Your task to perform on an android device: Clear the shopping cart on newegg. Image 0: 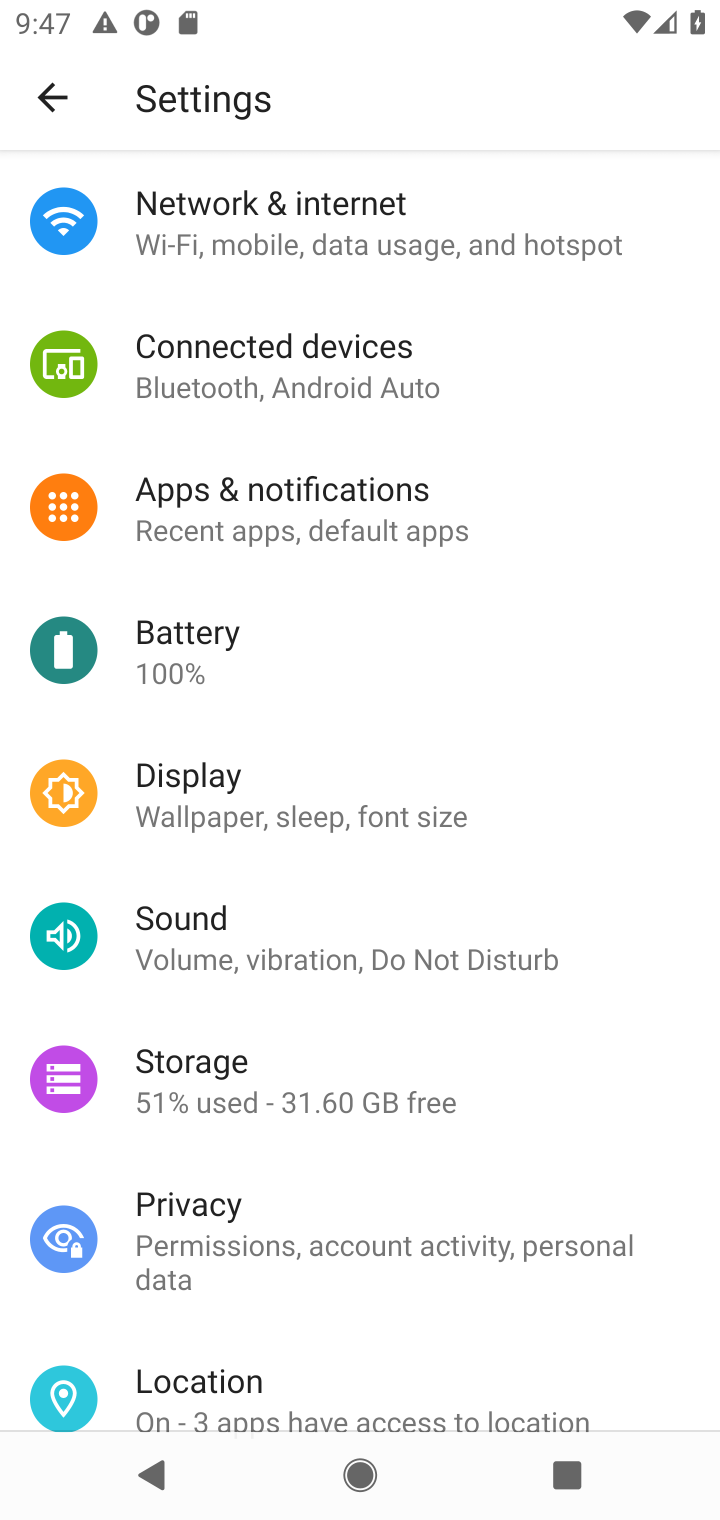
Step 0: press home button
Your task to perform on an android device: Clear the shopping cart on newegg. Image 1: 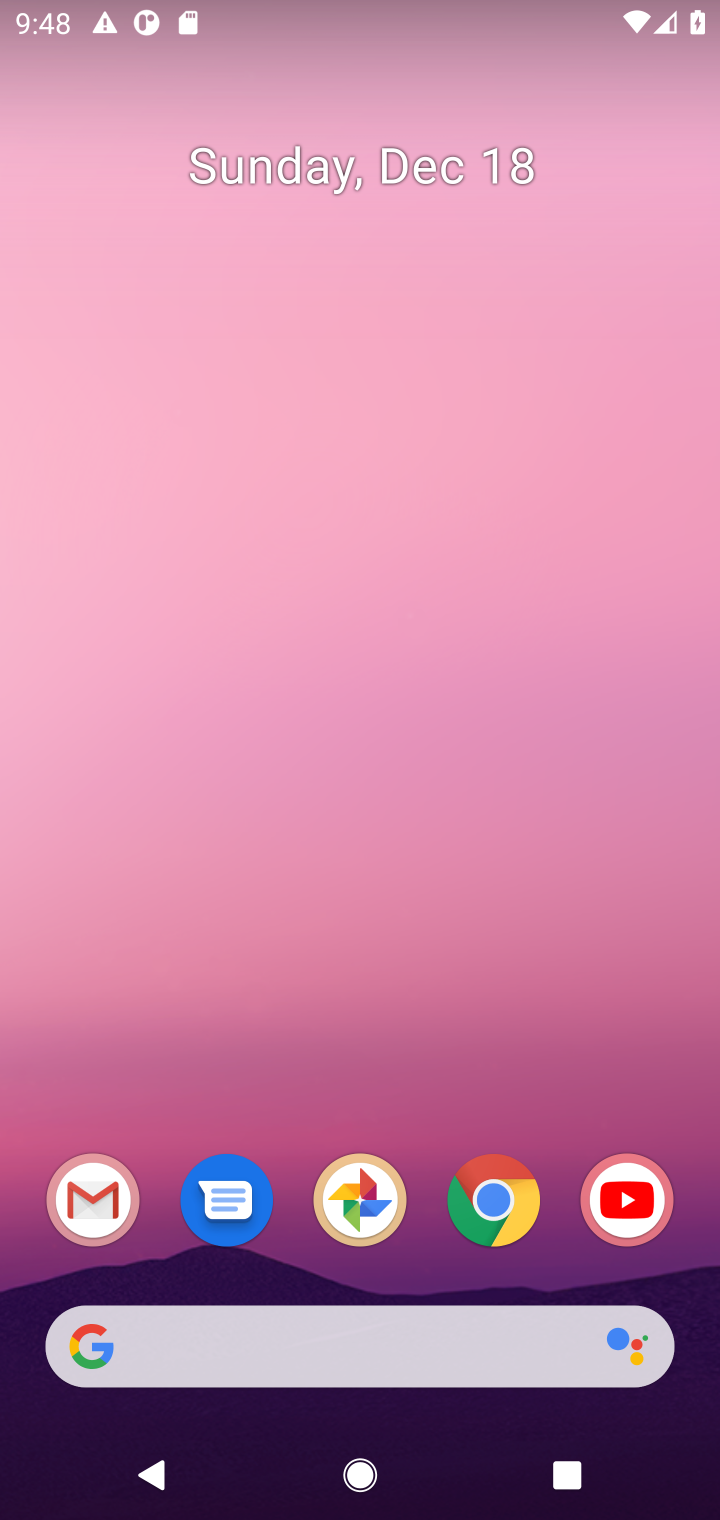
Step 1: click (506, 1207)
Your task to perform on an android device: Clear the shopping cart on newegg. Image 2: 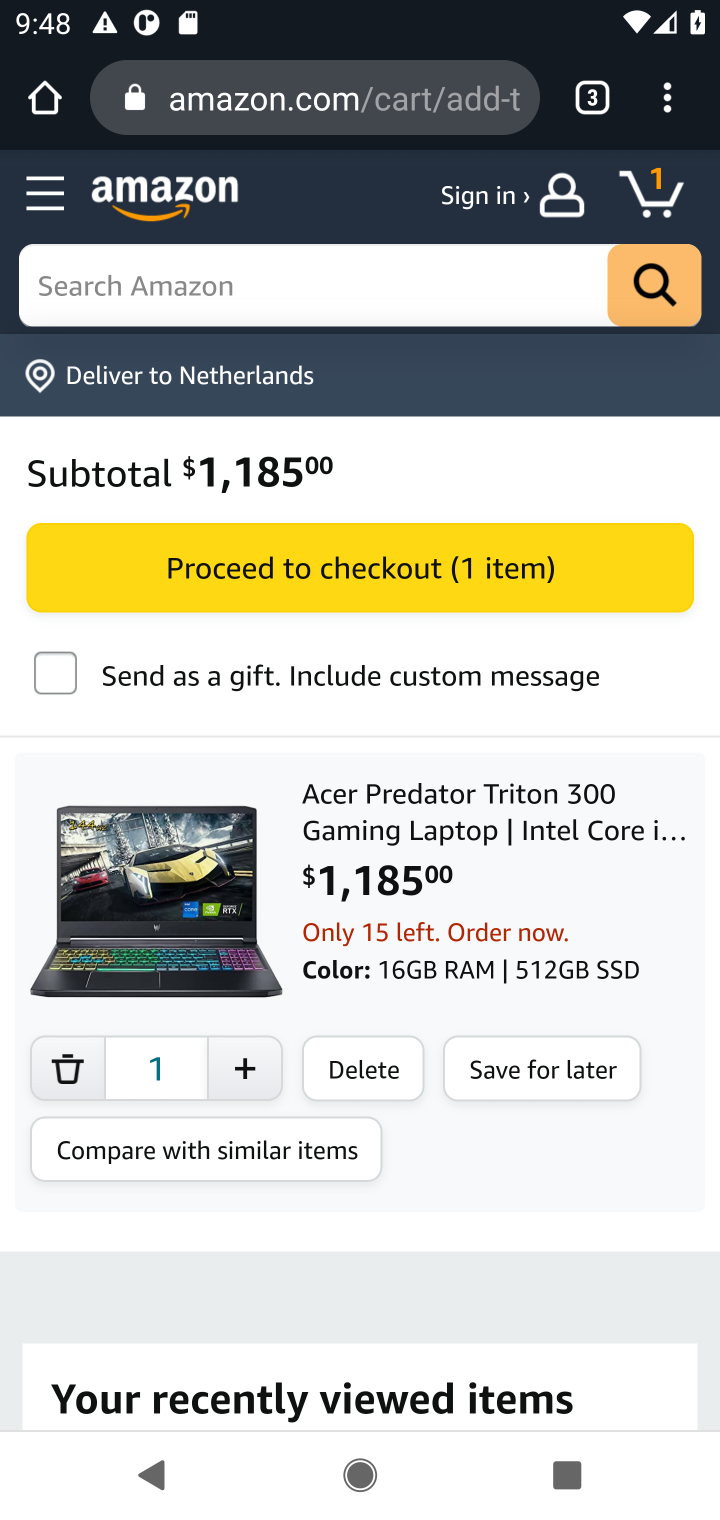
Step 2: click (280, 114)
Your task to perform on an android device: Clear the shopping cart on newegg. Image 3: 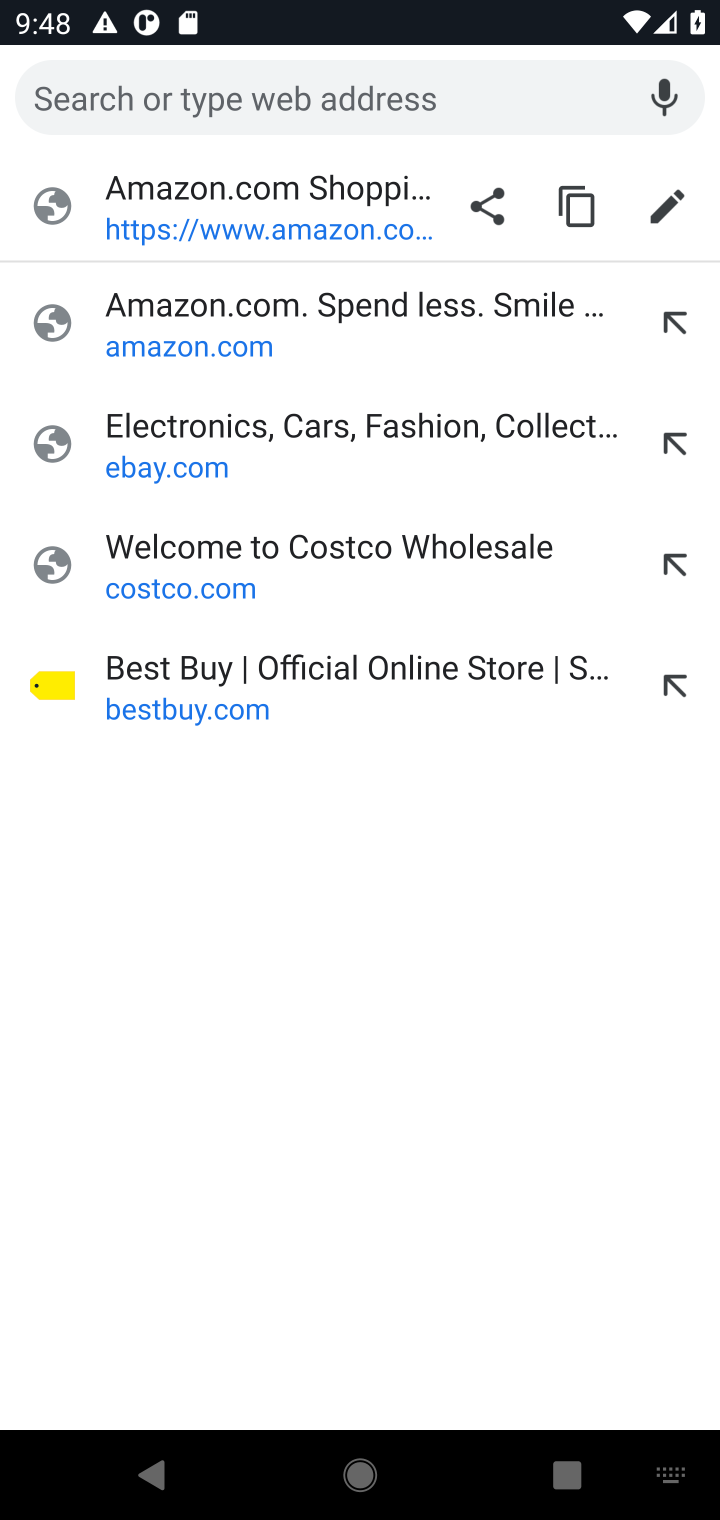
Step 3: type "newegg.com"
Your task to perform on an android device: Clear the shopping cart on newegg. Image 4: 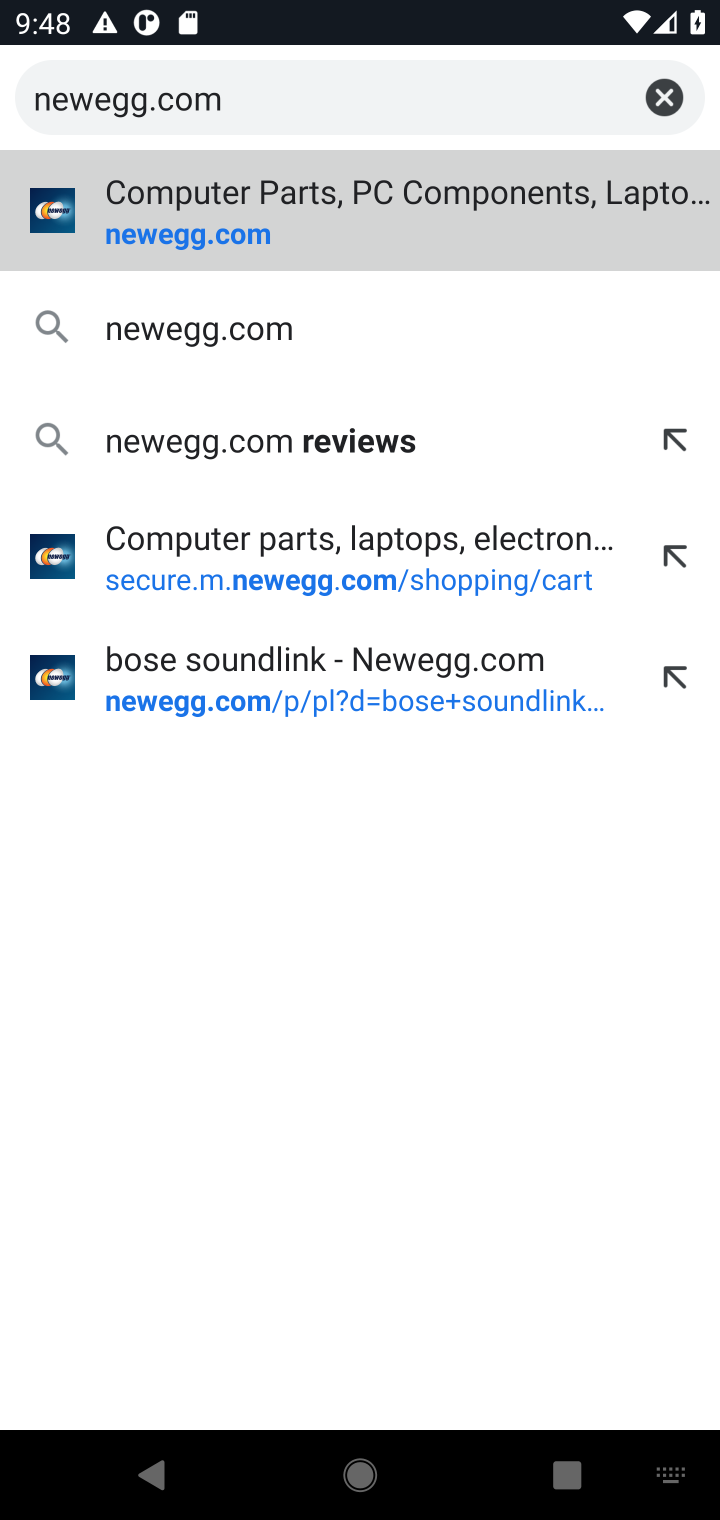
Step 4: click (145, 240)
Your task to perform on an android device: Clear the shopping cart on newegg. Image 5: 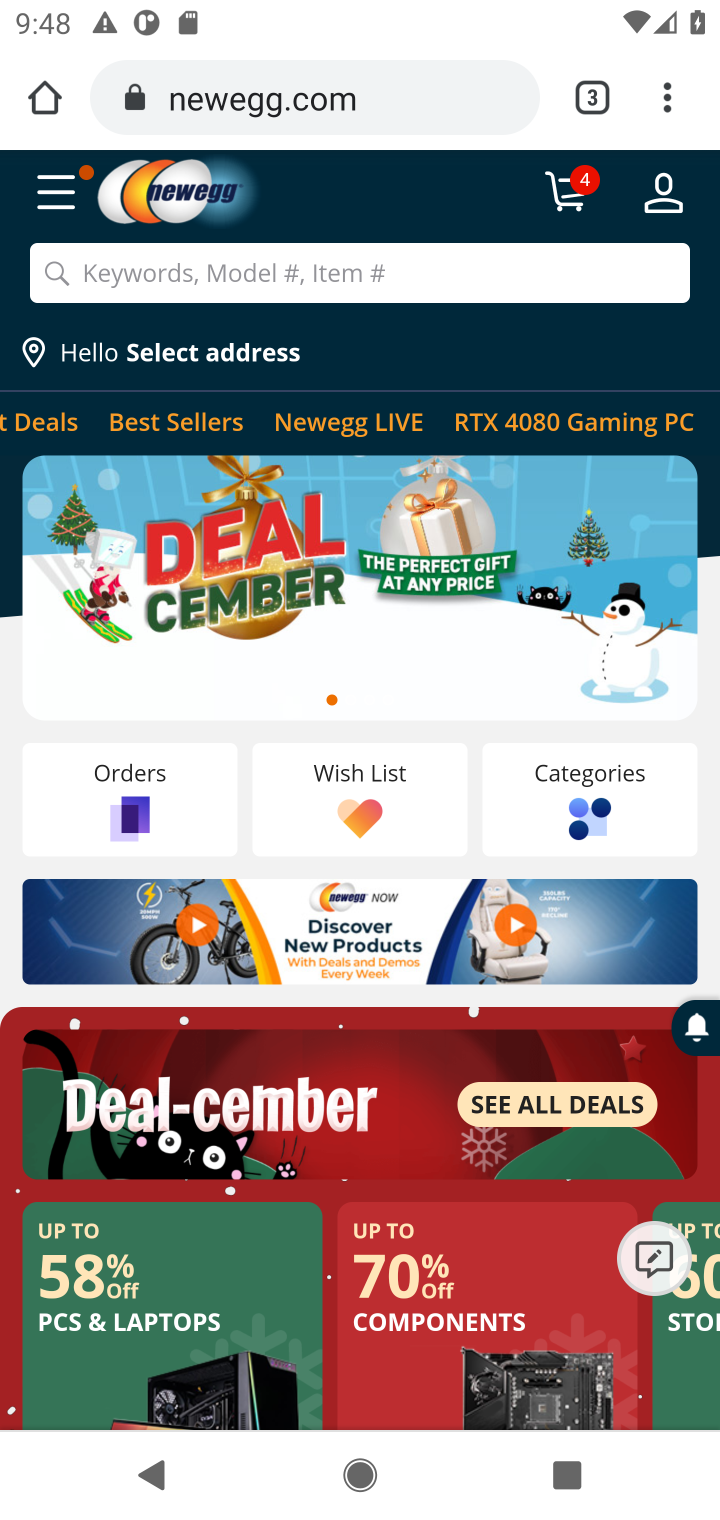
Step 5: click (572, 207)
Your task to perform on an android device: Clear the shopping cart on newegg. Image 6: 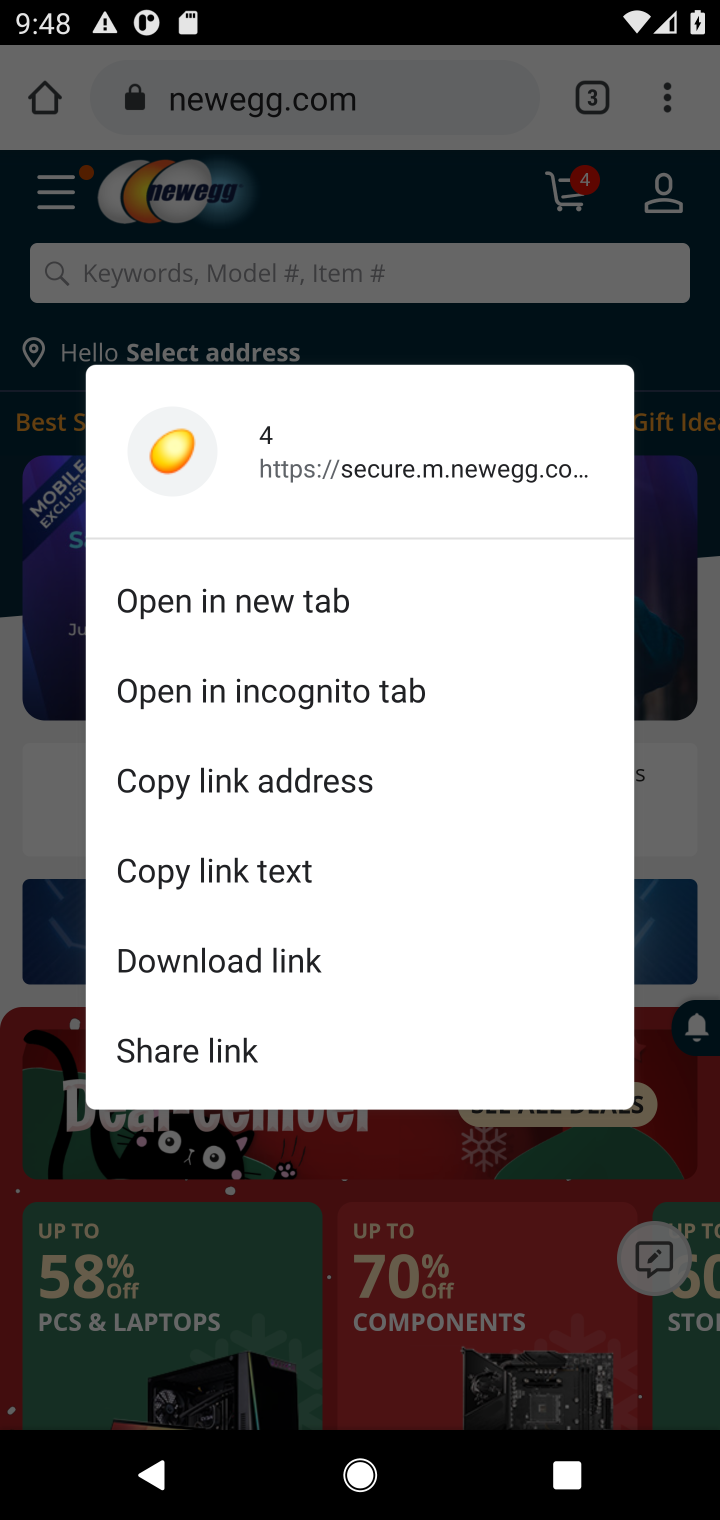
Step 6: click (572, 207)
Your task to perform on an android device: Clear the shopping cart on newegg. Image 7: 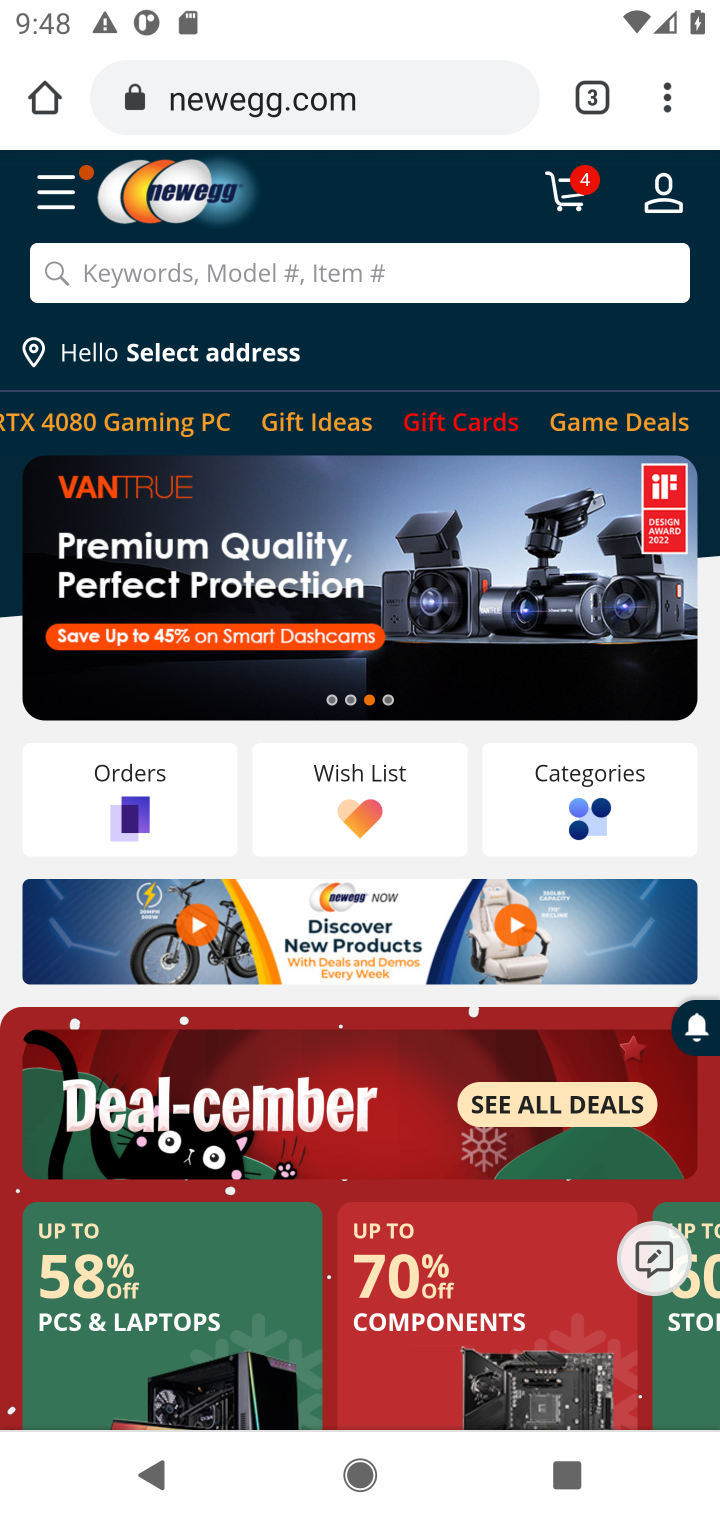
Step 7: click (569, 201)
Your task to perform on an android device: Clear the shopping cart on newegg. Image 8: 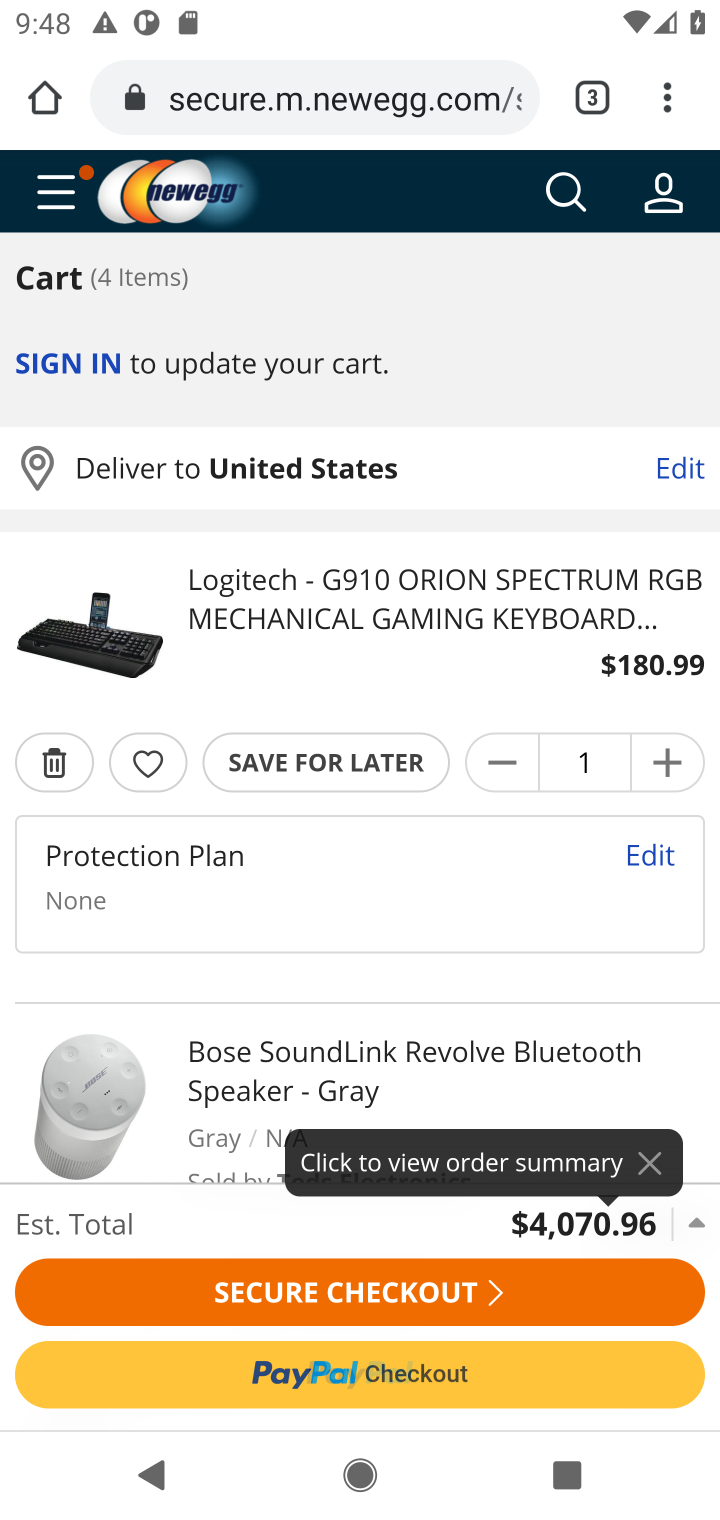
Step 8: click (48, 770)
Your task to perform on an android device: Clear the shopping cart on newegg. Image 9: 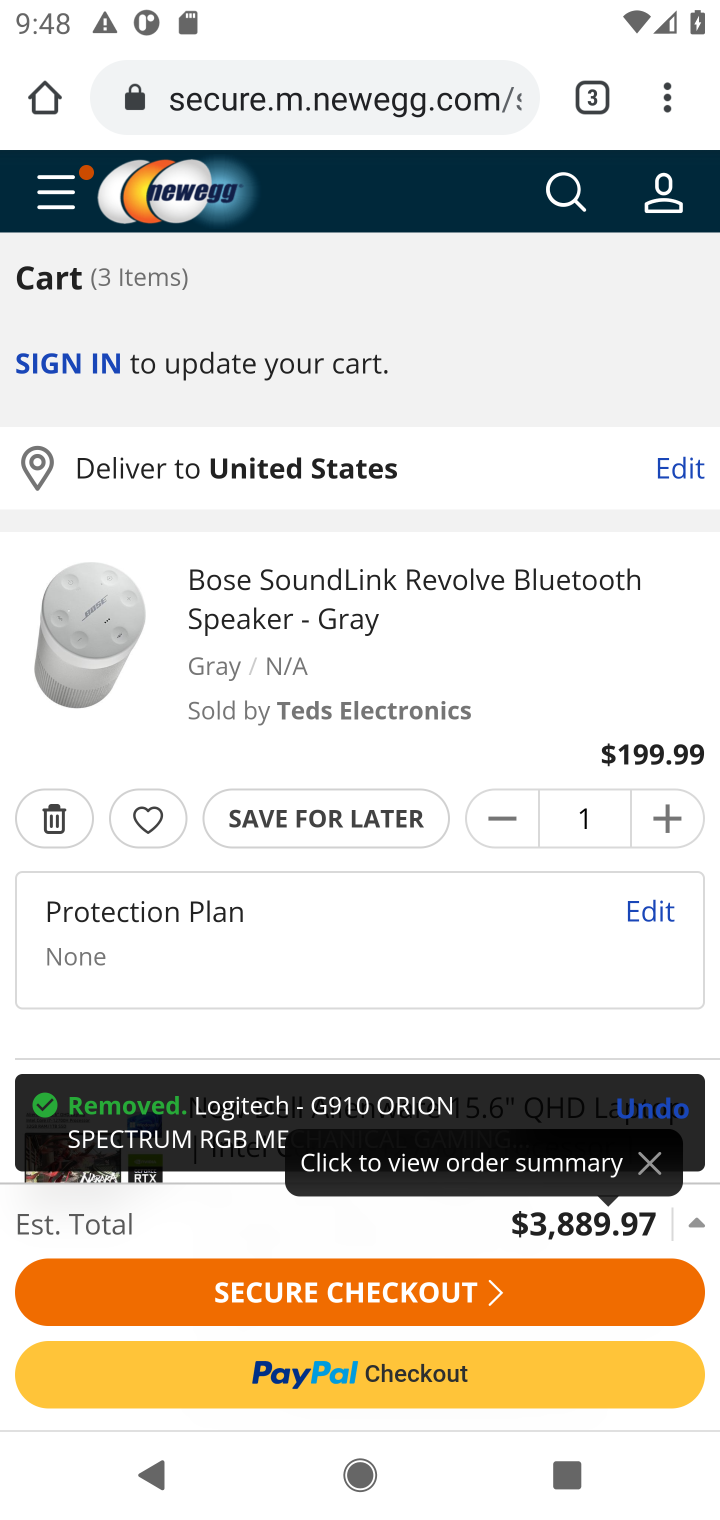
Step 9: click (48, 807)
Your task to perform on an android device: Clear the shopping cart on newegg. Image 10: 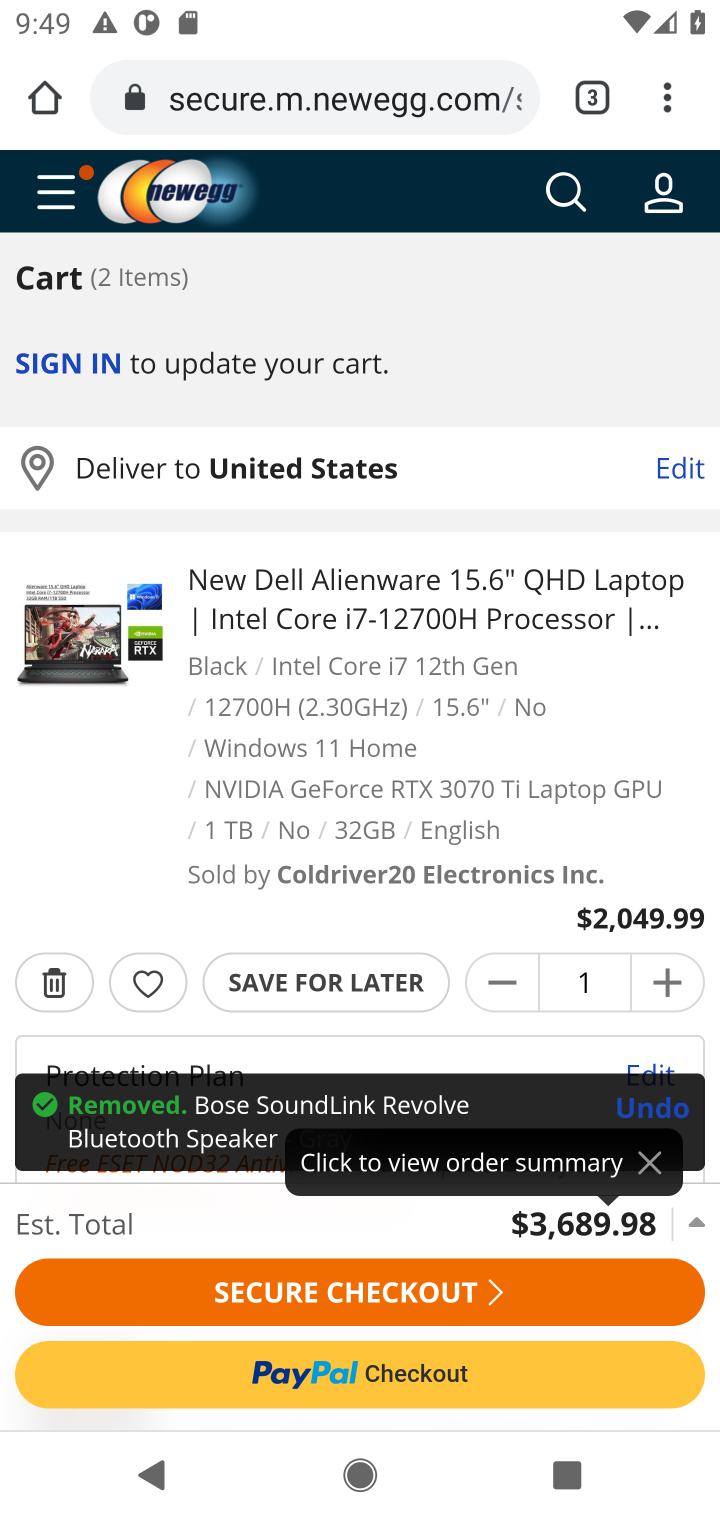
Step 10: click (47, 973)
Your task to perform on an android device: Clear the shopping cart on newegg. Image 11: 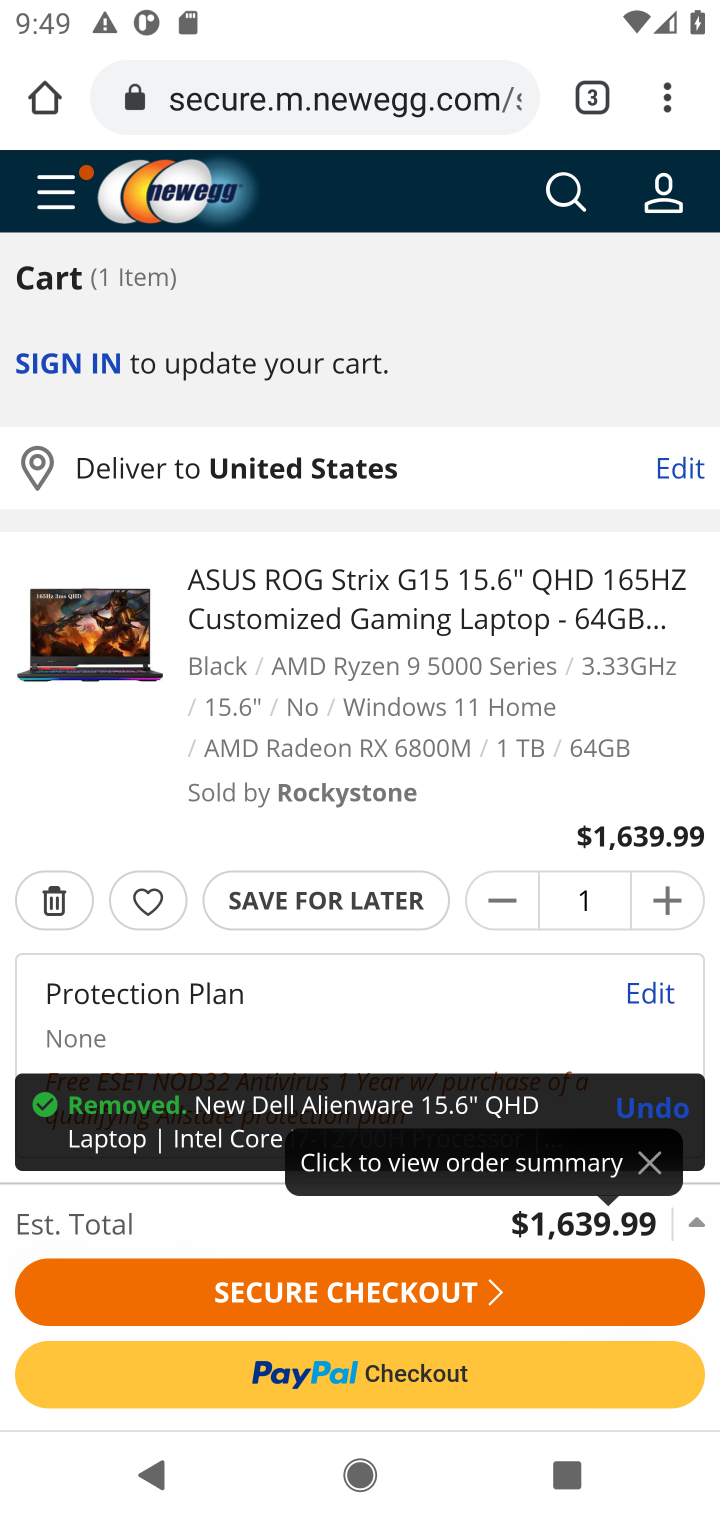
Step 11: click (58, 902)
Your task to perform on an android device: Clear the shopping cart on newegg. Image 12: 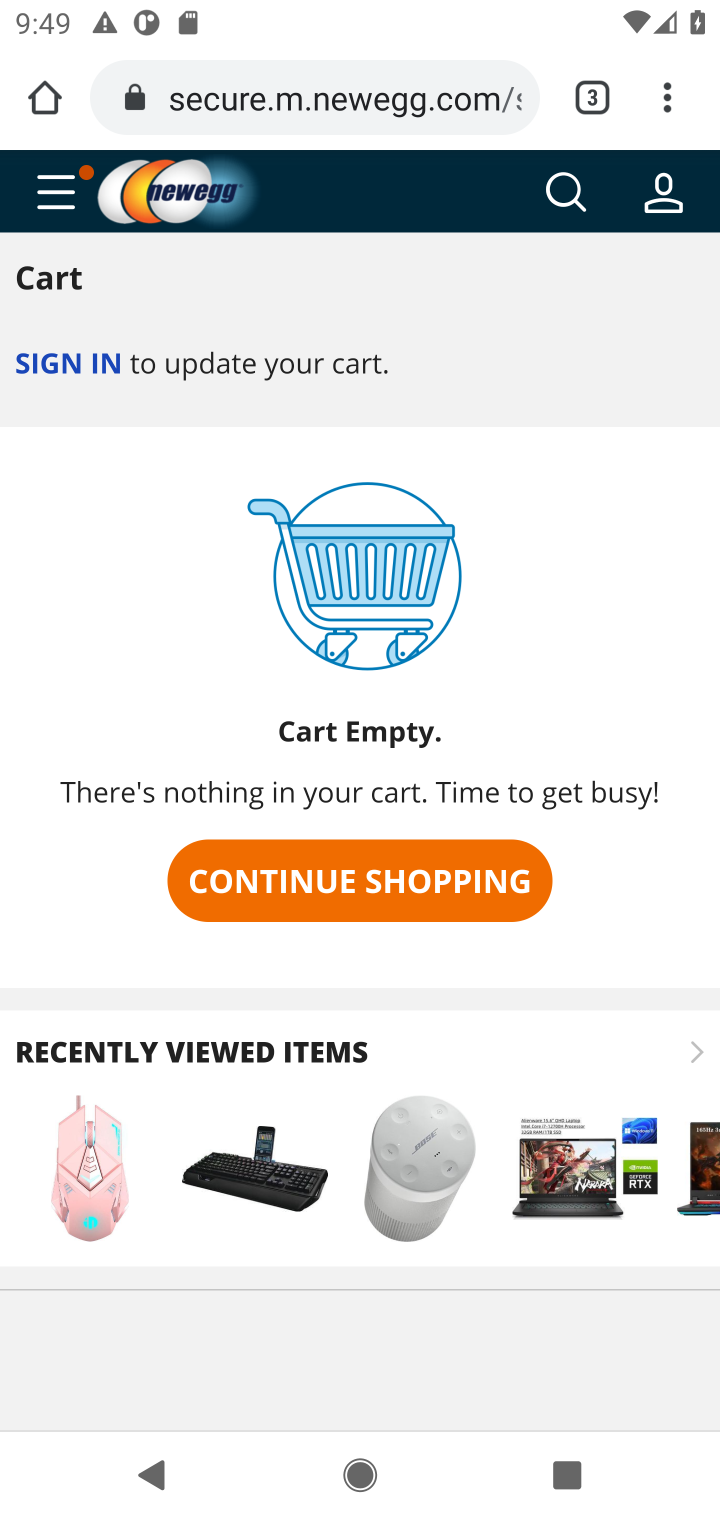
Step 12: task complete